Your task to perform on an android device: Do I have any events tomorrow? Image 0: 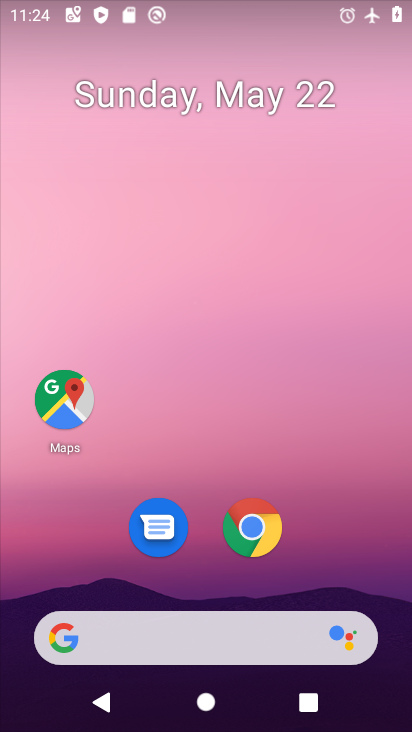
Step 0: drag from (357, 578) to (341, 106)
Your task to perform on an android device: Do I have any events tomorrow? Image 1: 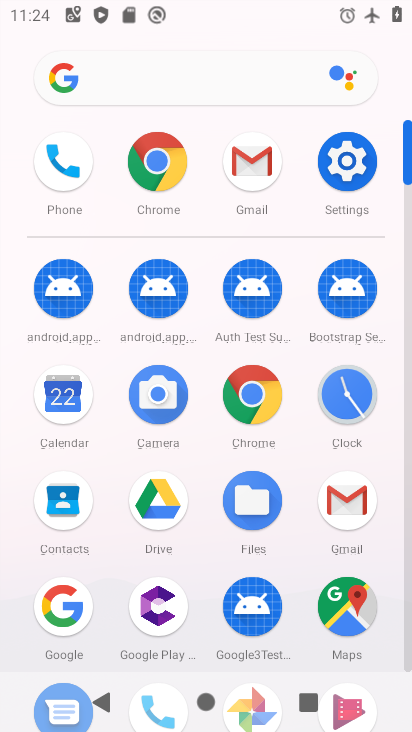
Step 1: click (66, 405)
Your task to perform on an android device: Do I have any events tomorrow? Image 2: 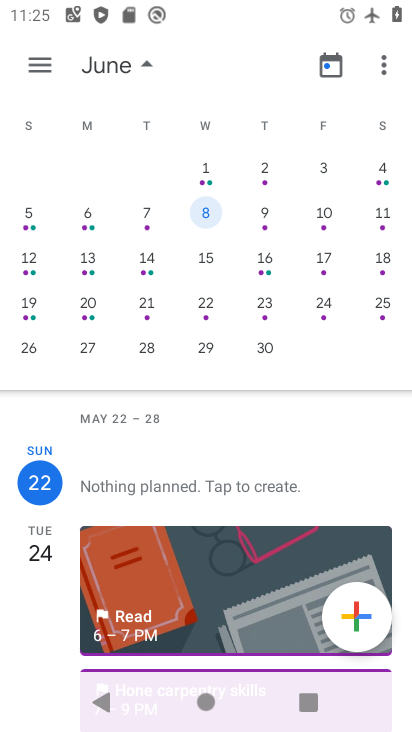
Step 2: task complete